Your task to perform on an android device: What is the recent news? Image 0: 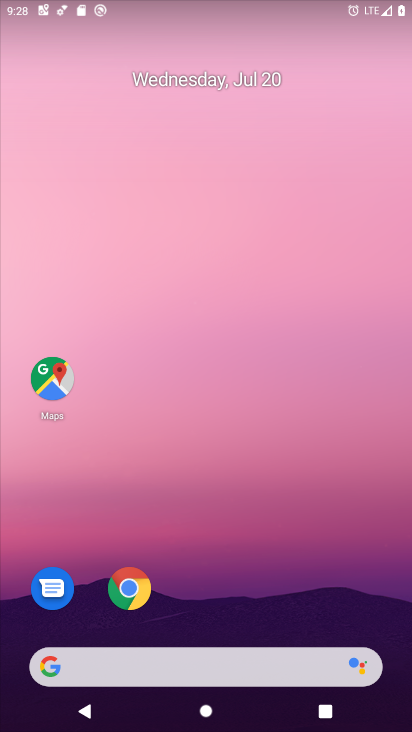
Step 0: drag from (6, 290) to (410, 264)
Your task to perform on an android device: What is the recent news? Image 1: 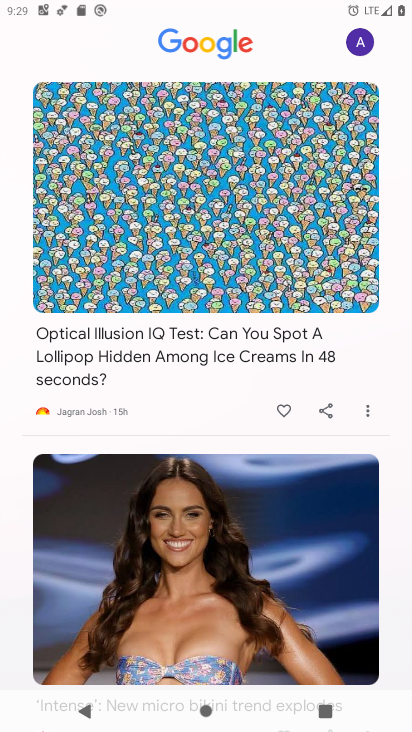
Step 1: task complete